Your task to perform on an android device: turn on improve location accuracy Image 0: 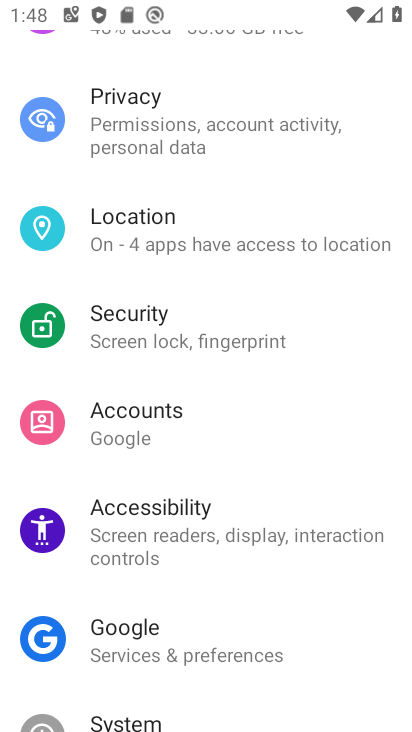
Step 0: press home button
Your task to perform on an android device: turn on improve location accuracy Image 1: 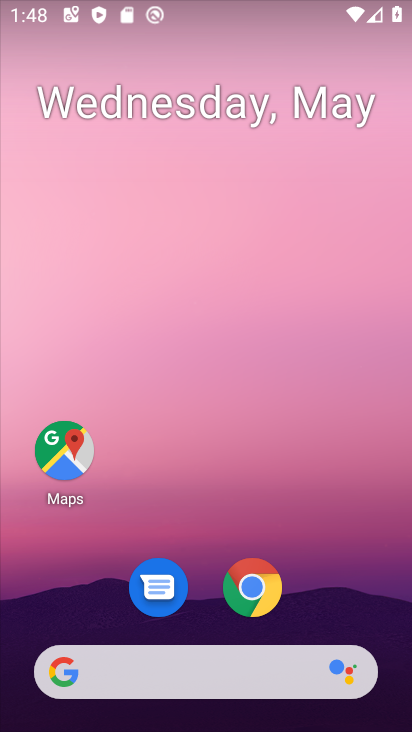
Step 1: drag from (319, 629) to (280, 2)
Your task to perform on an android device: turn on improve location accuracy Image 2: 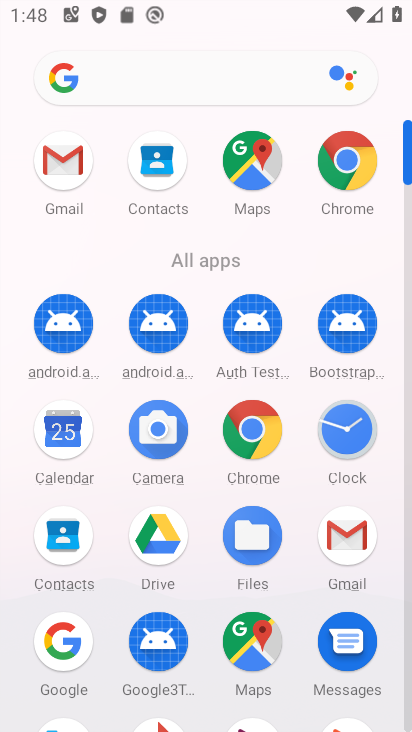
Step 2: drag from (210, 609) to (181, 184)
Your task to perform on an android device: turn on improve location accuracy Image 3: 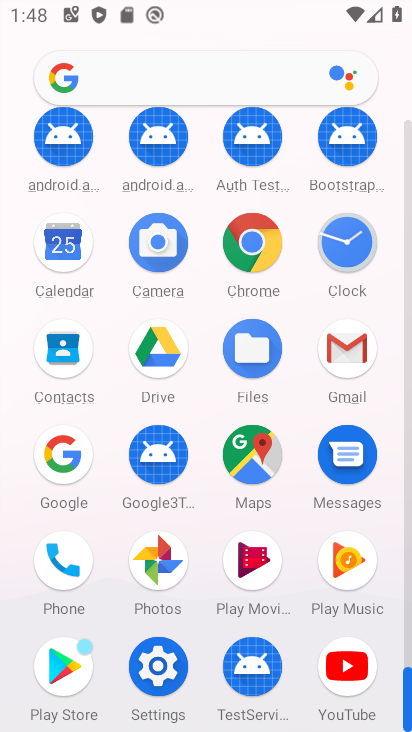
Step 3: click (143, 652)
Your task to perform on an android device: turn on improve location accuracy Image 4: 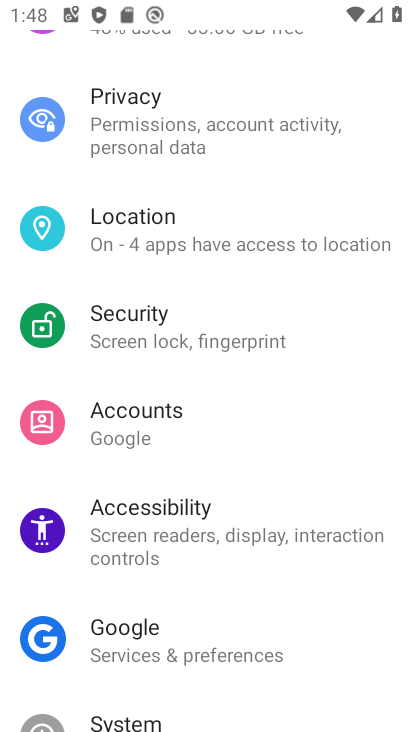
Step 4: drag from (237, 659) to (205, 206)
Your task to perform on an android device: turn on improve location accuracy Image 5: 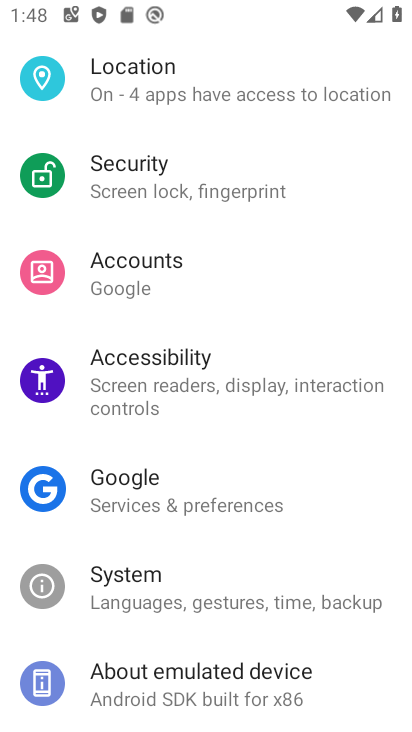
Step 5: click (137, 98)
Your task to perform on an android device: turn on improve location accuracy Image 6: 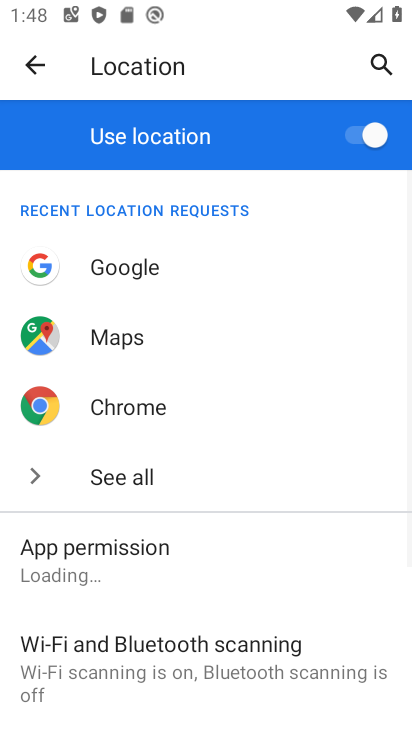
Step 6: drag from (218, 659) to (170, 80)
Your task to perform on an android device: turn on improve location accuracy Image 7: 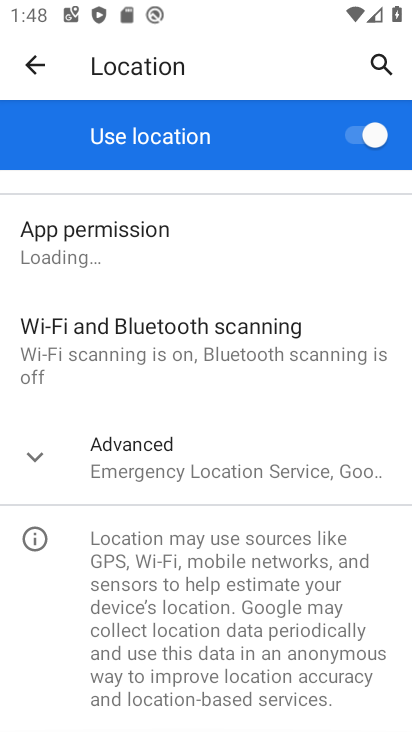
Step 7: click (164, 484)
Your task to perform on an android device: turn on improve location accuracy Image 8: 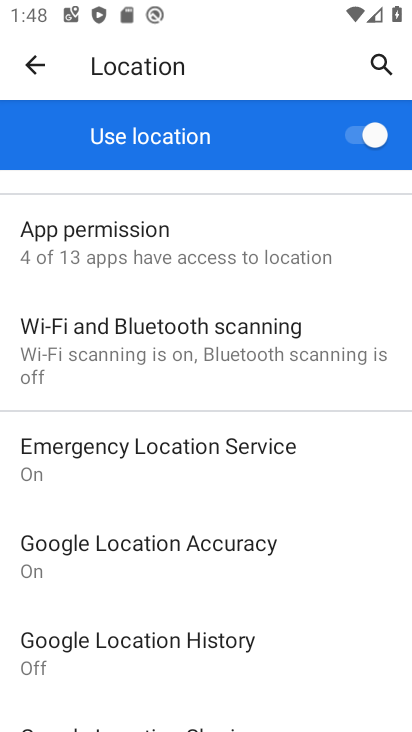
Step 8: click (177, 552)
Your task to perform on an android device: turn on improve location accuracy Image 9: 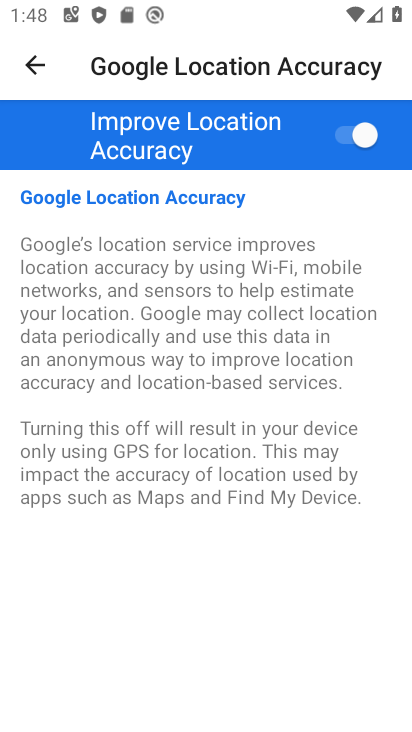
Step 9: task complete